Your task to perform on an android device: Open Android settings Image 0: 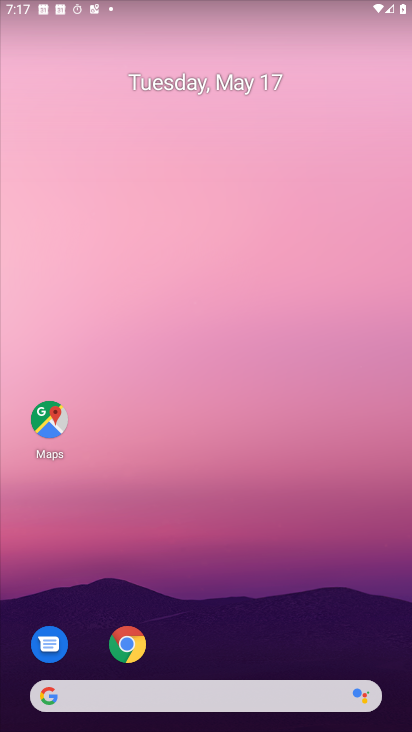
Step 0: drag from (305, 652) to (292, 556)
Your task to perform on an android device: Open Android settings Image 1: 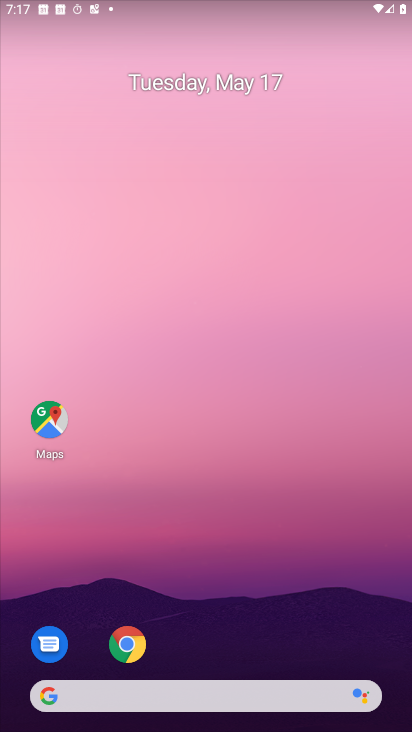
Step 1: drag from (318, 649) to (263, 62)
Your task to perform on an android device: Open Android settings Image 2: 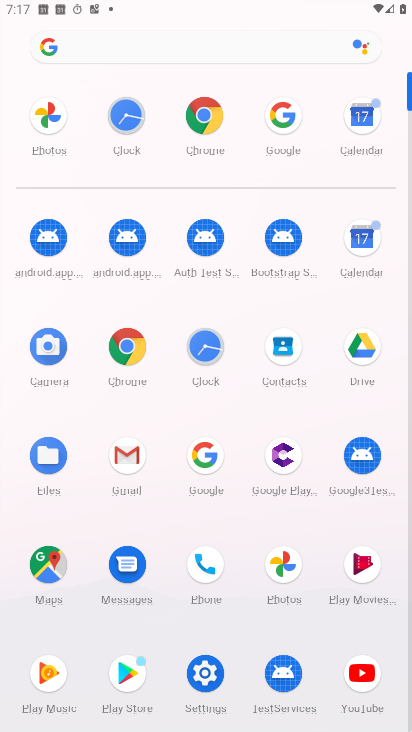
Step 2: click (205, 656)
Your task to perform on an android device: Open Android settings Image 3: 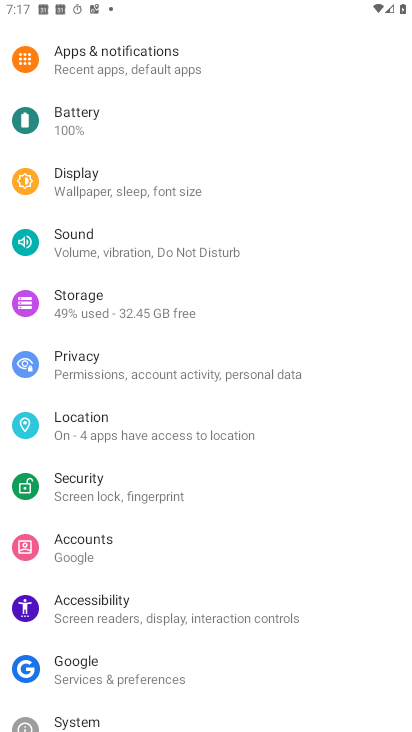
Step 3: drag from (82, 665) to (104, 342)
Your task to perform on an android device: Open Android settings Image 4: 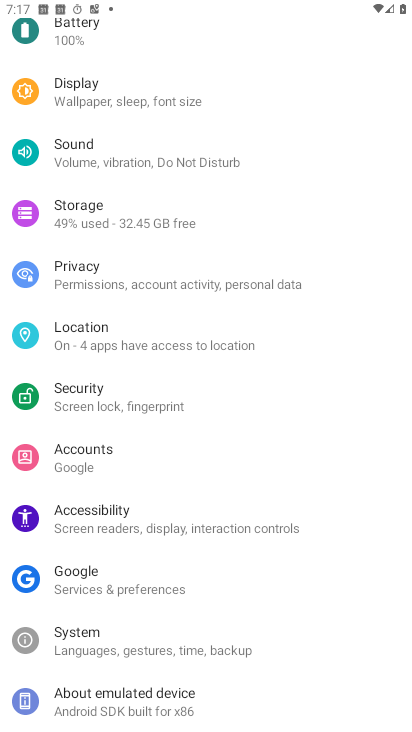
Step 4: click (132, 685)
Your task to perform on an android device: Open Android settings Image 5: 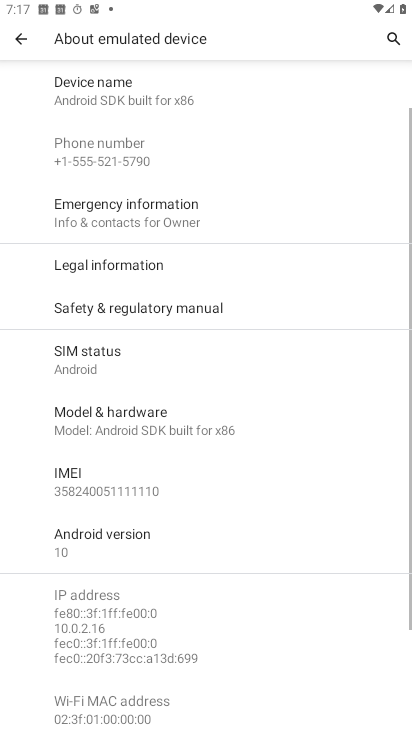
Step 5: click (101, 564)
Your task to perform on an android device: Open Android settings Image 6: 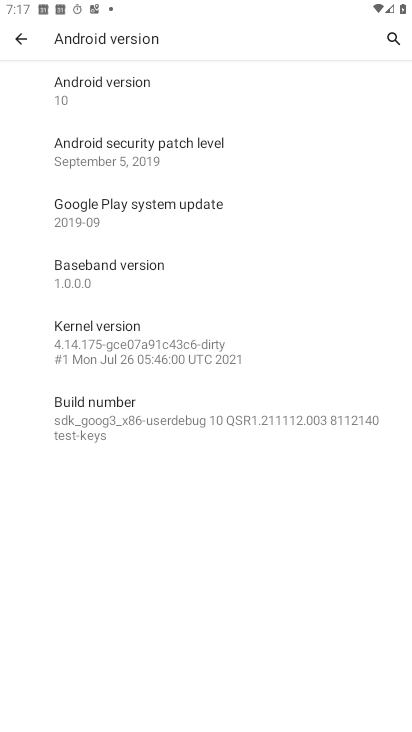
Step 6: task complete